Your task to perform on an android device: empty trash in google photos Image 0: 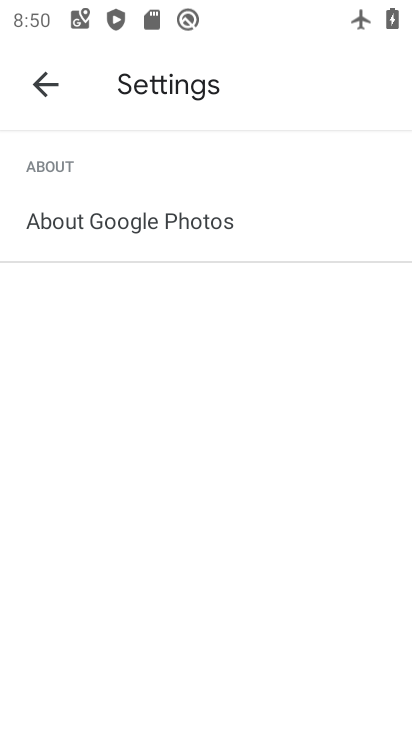
Step 0: press home button
Your task to perform on an android device: empty trash in google photos Image 1: 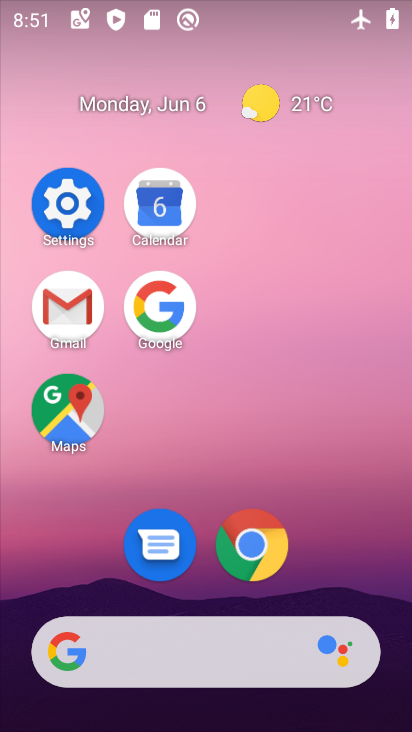
Step 1: drag from (378, 534) to (353, 147)
Your task to perform on an android device: empty trash in google photos Image 2: 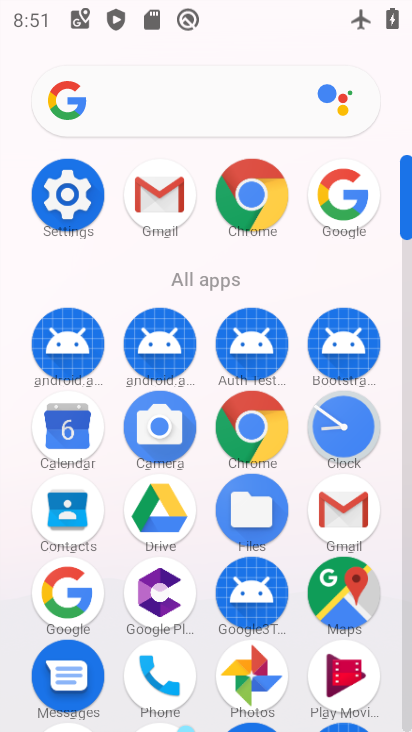
Step 2: drag from (246, 660) to (181, 362)
Your task to perform on an android device: empty trash in google photos Image 3: 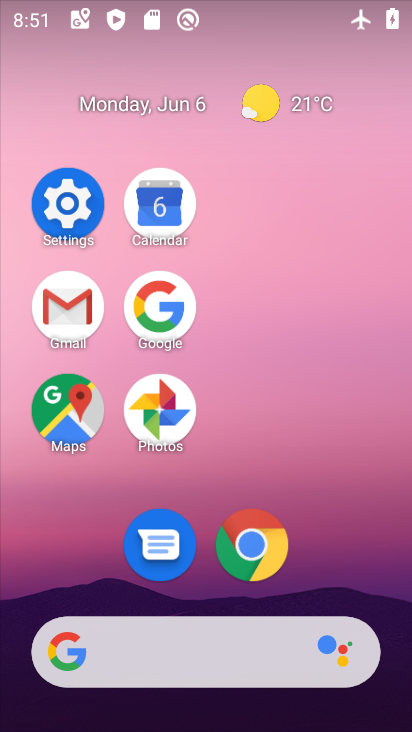
Step 3: click (160, 417)
Your task to perform on an android device: empty trash in google photos Image 4: 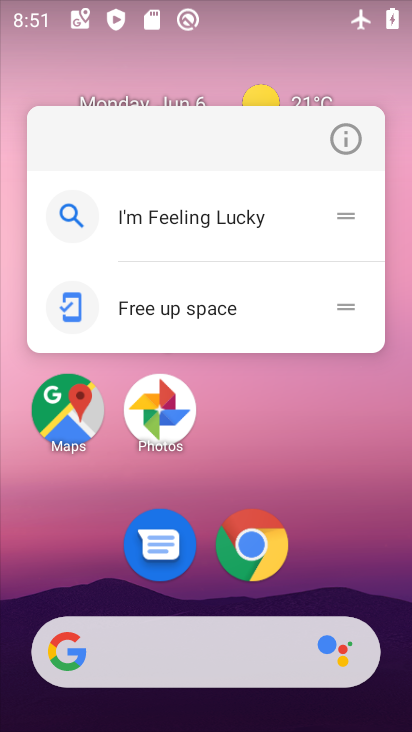
Step 4: click (160, 417)
Your task to perform on an android device: empty trash in google photos Image 5: 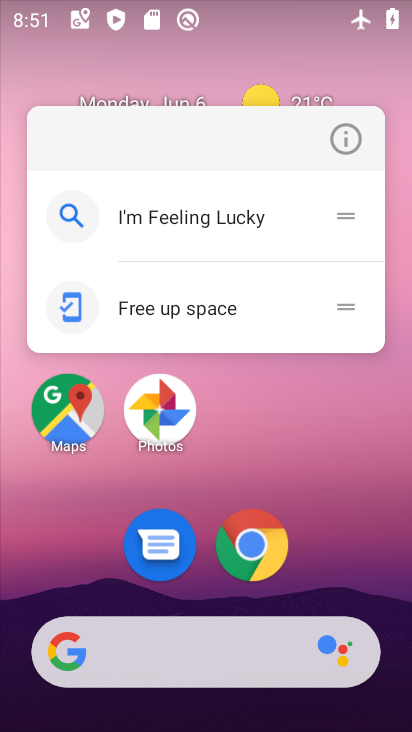
Step 5: click (178, 401)
Your task to perform on an android device: empty trash in google photos Image 6: 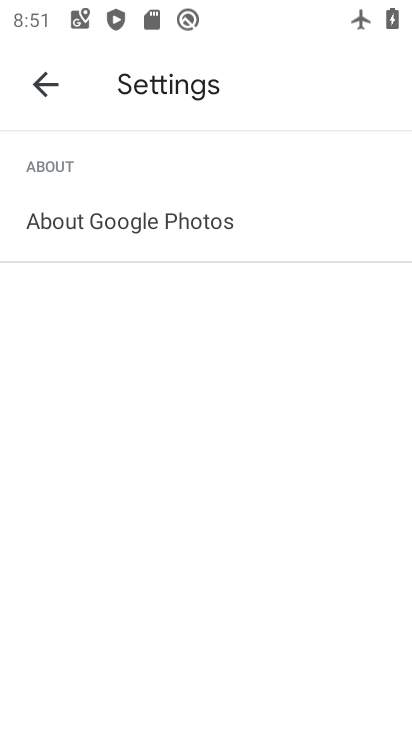
Step 6: click (49, 80)
Your task to perform on an android device: empty trash in google photos Image 7: 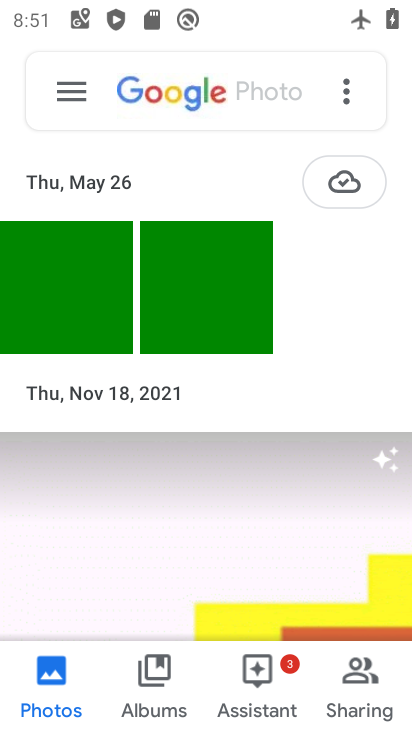
Step 7: click (88, 104)
Your task to perform on an android device: empty trash in google photos Image 8: 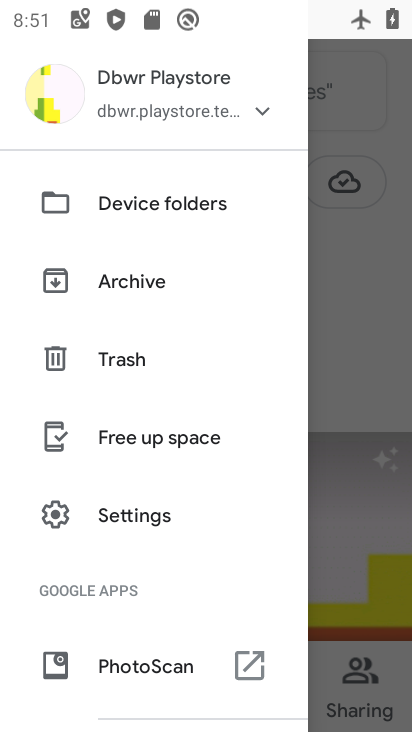
Step 8: click (150, 353)
Your task to perform on an android device: empty trash in google photos Image 9: 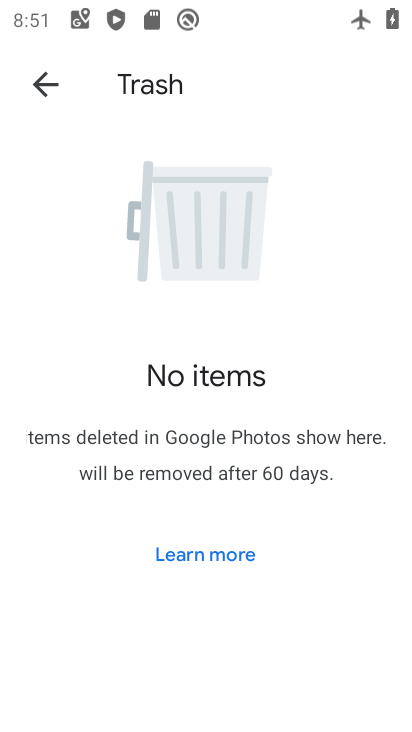
Step 9: task complete